Your task to perform on an android device: check storage Image 0: 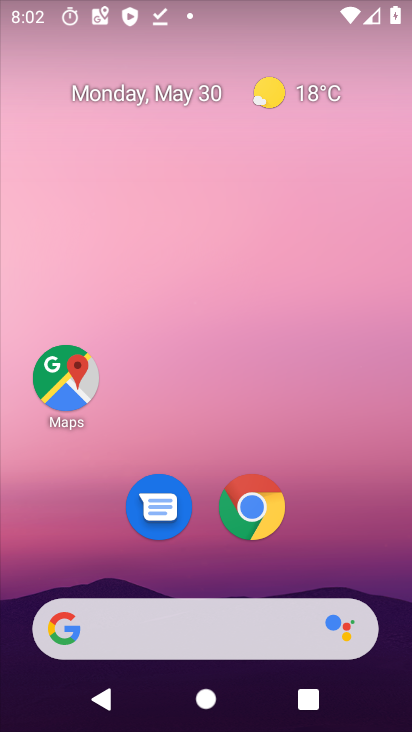
Step 0: drag from (285, 508) to (291, 194)
Your task to perform on an android device: check storage Image 1: 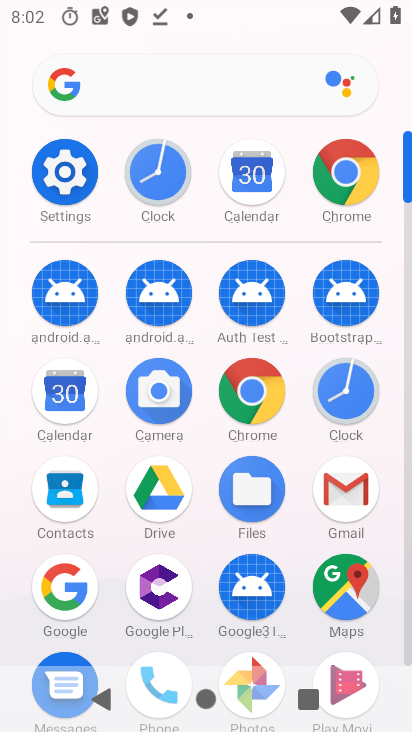
Step 1: click (62, 184)
Your task to perform on an android device: check storage Image 2: 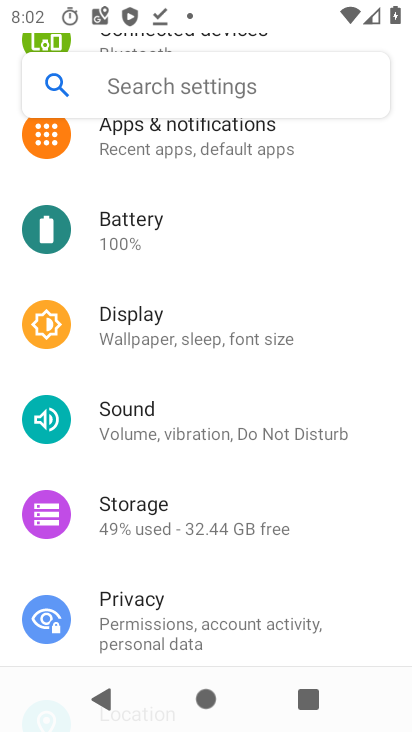
Step 2: drag from (299, 599) to (274, 278)
Your task to perform on an android device: check storage Image 3: 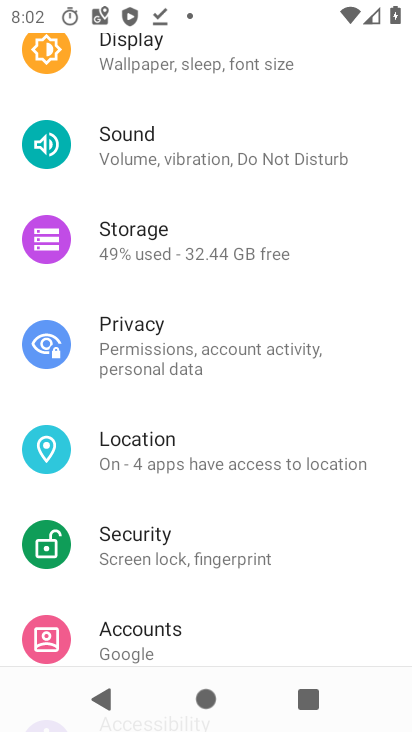
Step 3: click (179, 249)
Your task to perform on an android device: check storage Image 4: 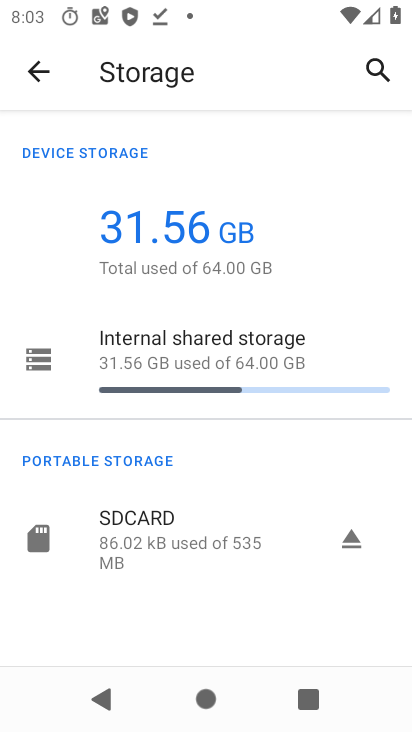
Step 4: click (34, 368)
Your task to perform on an android device: check storage Image 5: 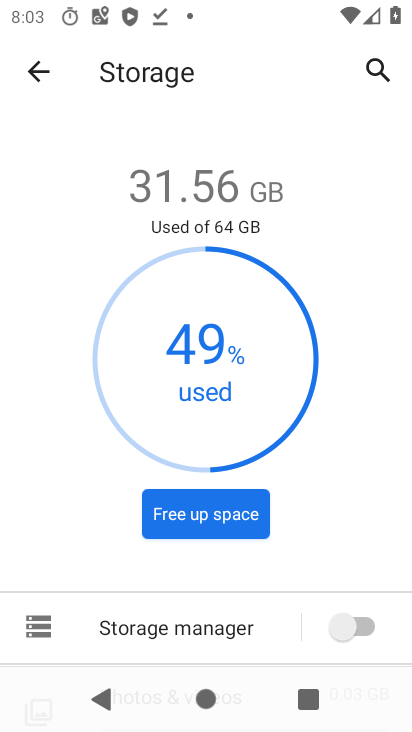
Step 5: task complete